Your task to perform on an android device: Open calendar and show me the first week of next month Image 0: 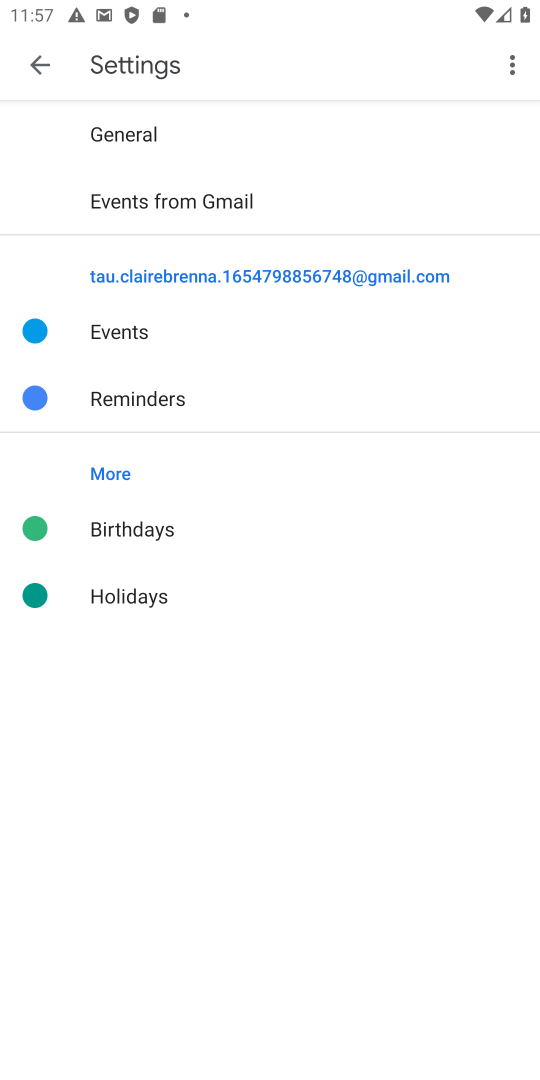
Step 0: press home button
Your task to perform on an android device: Open calendar and show me the first week of next month Image 1: 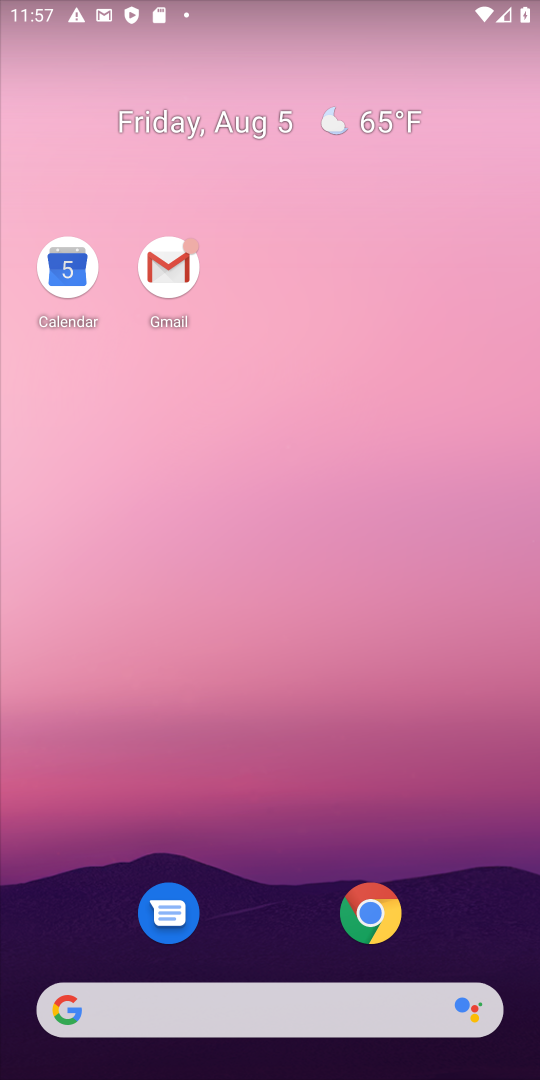
Step 1: click (60, 265)
Your task to perform on an android device: Open calendar and show me the first week of next month Image 2: 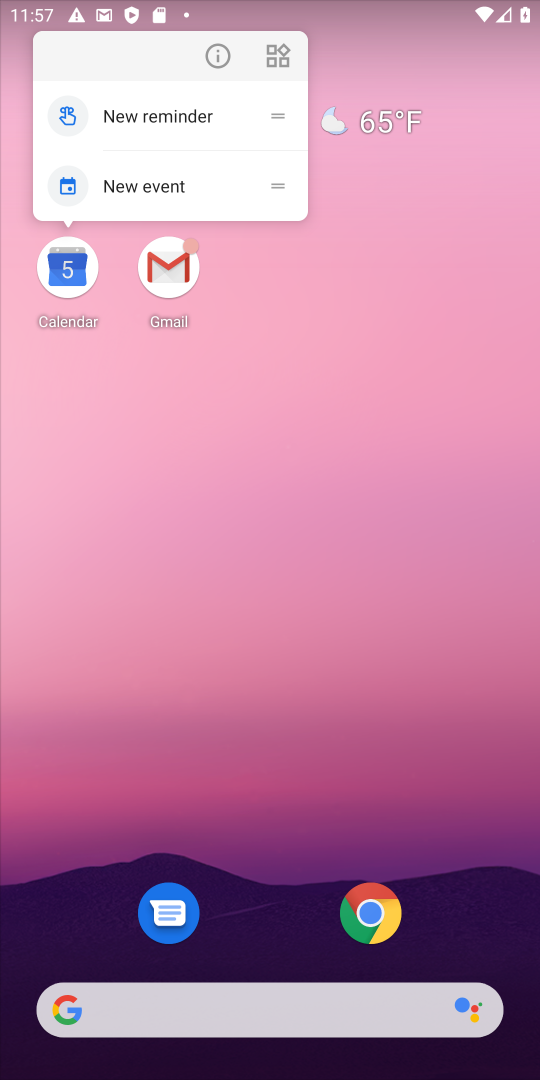
Step 2: click (56, 268)
Your task to perform on an android device: Open calendar and show me the first week of next month Image 3: 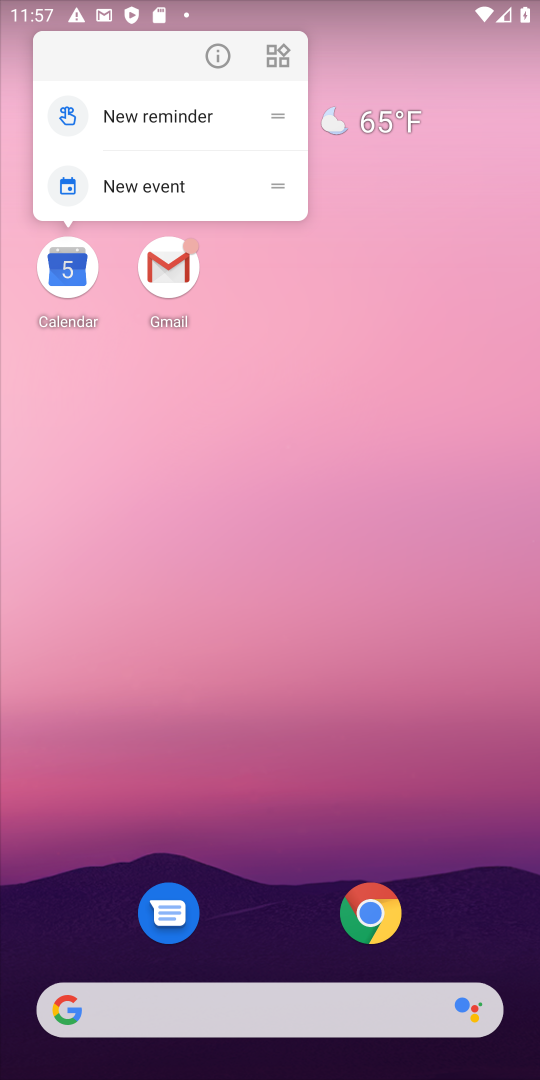
Step 3: click (84, 246)
Your task to perform on an android device: Open calendar and show me the first week of next month Image 4: 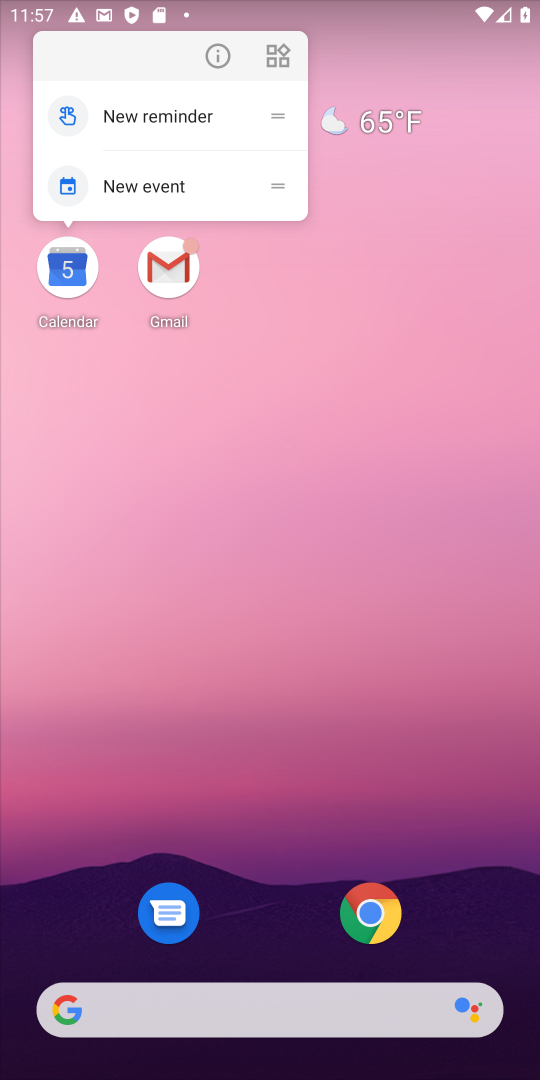
Step 4: click (79, 275)
Your task to perform on an android device: Open calendar and show me the first week of next month Image 5: 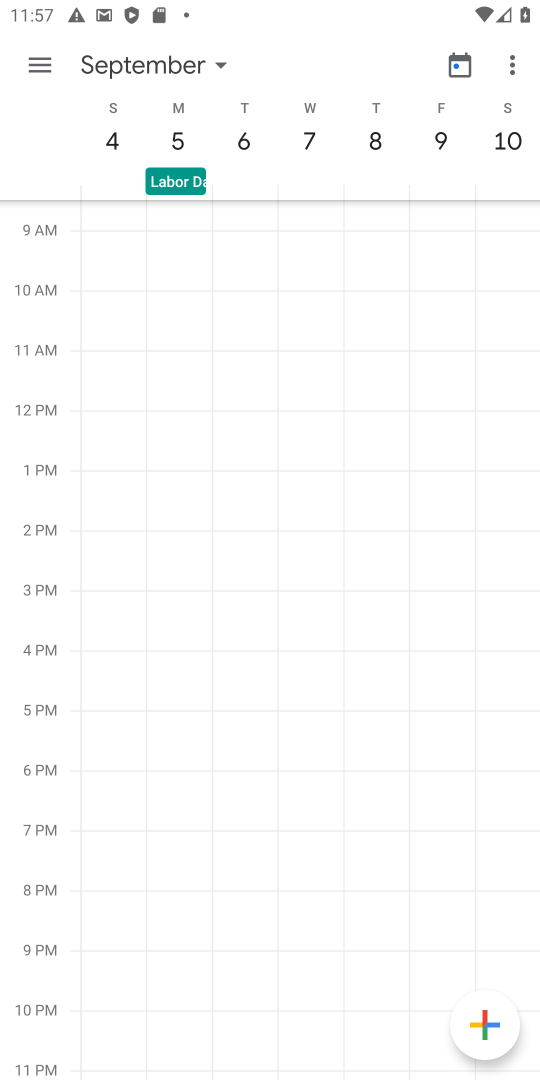
Step 5: click (36, 62)
Your task to perform on an android device: Open calendar and show me the first week of next month Image 6: 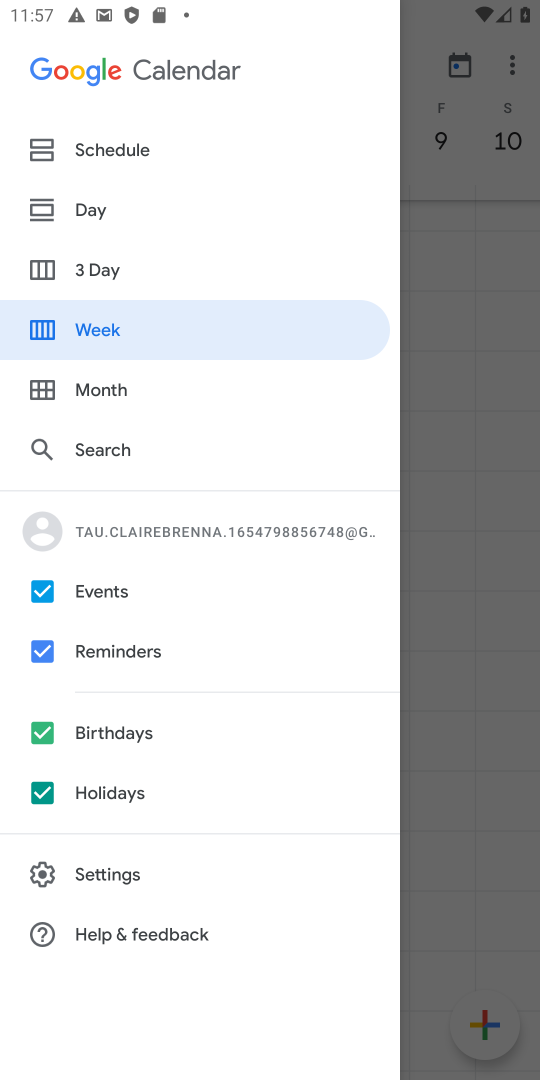
Step 6: click (159, 335)
Your task to perform on an android device: Open calendar and show me the first week of next month Image 7: 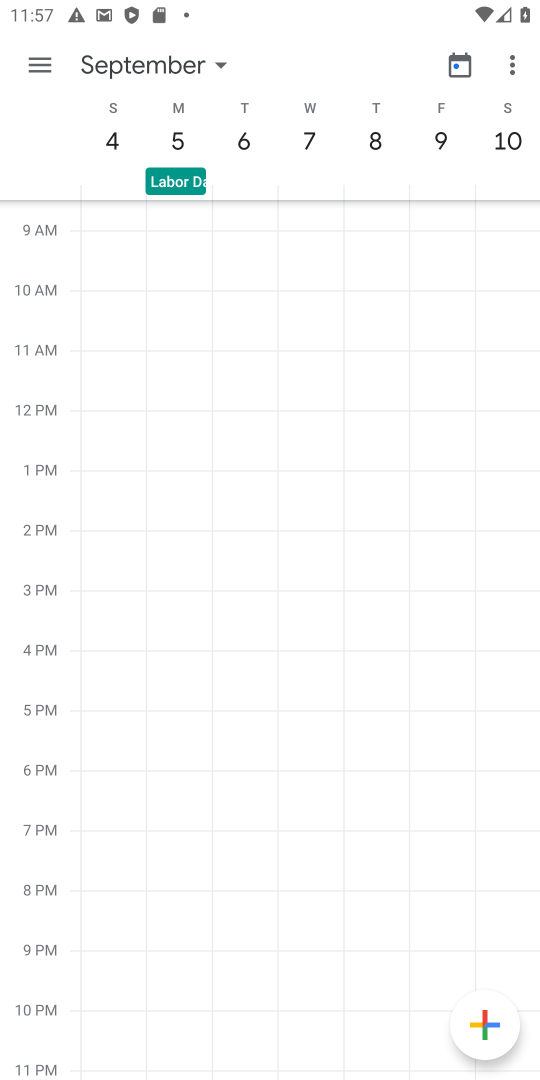
Step 7: task complete